Your task to perform on an android device: show emergency info Image 0: 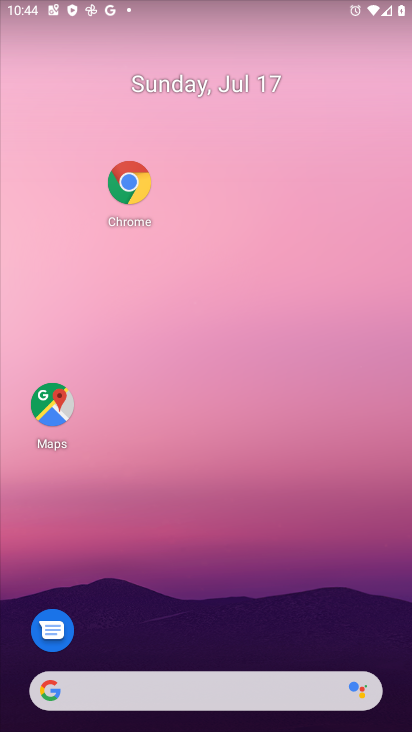
Step 0: drag from (186, 548) to (159, 3)
Your task to perform on an android device: show emergency info Image 1: 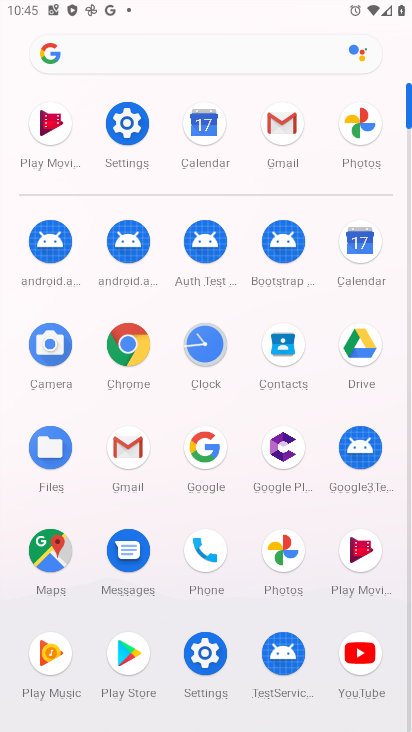
Step 1: click (117, 135)
Your task to perform on an android device: show emergency info Image 2: 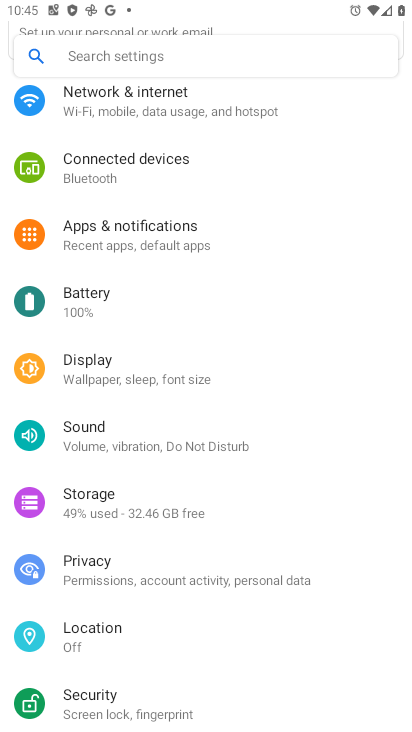
Step 2: drag from (173, 620) to (173, 300)
Your task to perform on an android device: show emergency info Image 3: 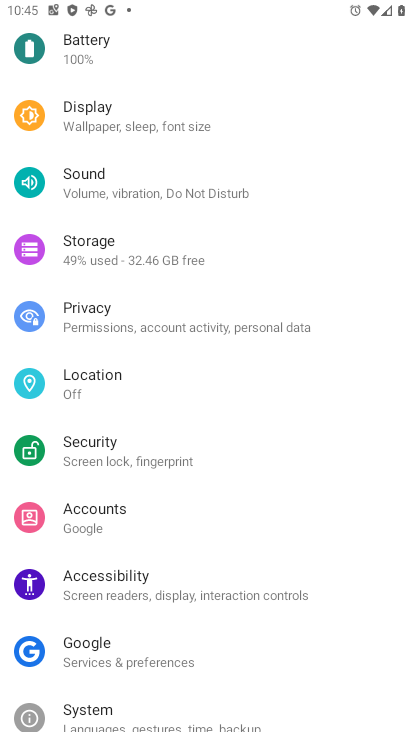
Step 3: drag from (117, 610) to (117, 409)
Your task to perform on an android device: show emergency info Image 4: 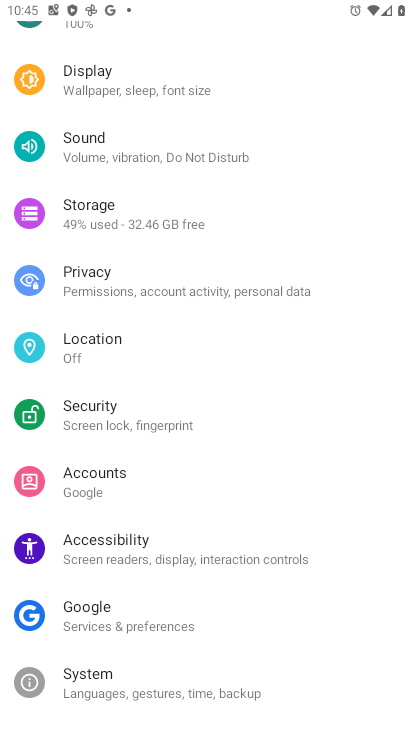
Step 4: drag from (165, 380) to (171, 338)
Your task to perform on an android device: show emergency info Image 5: 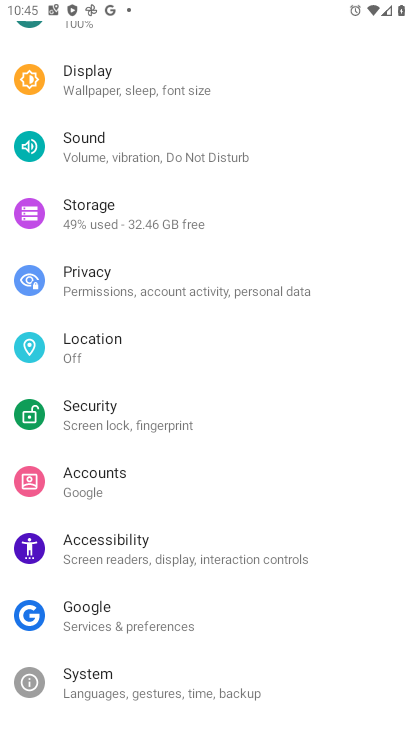
Step 5: drag from (151, 622) to (189, 238)
Your task to perform on an android device: show emergency info Image 6: 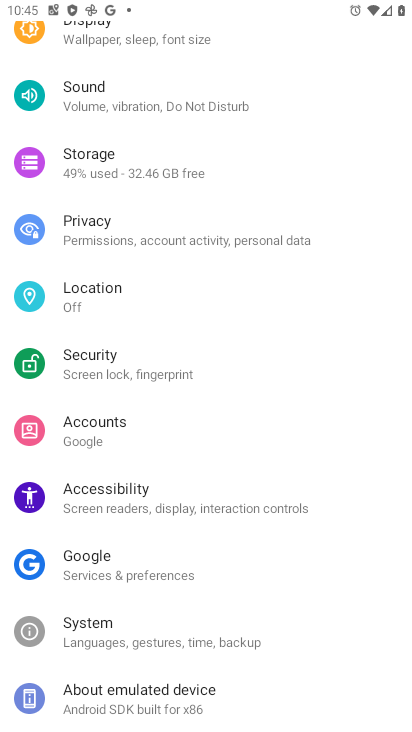
Step 6: click (104, 705)
Your task to perform on an android device: show emergency info Image 7: 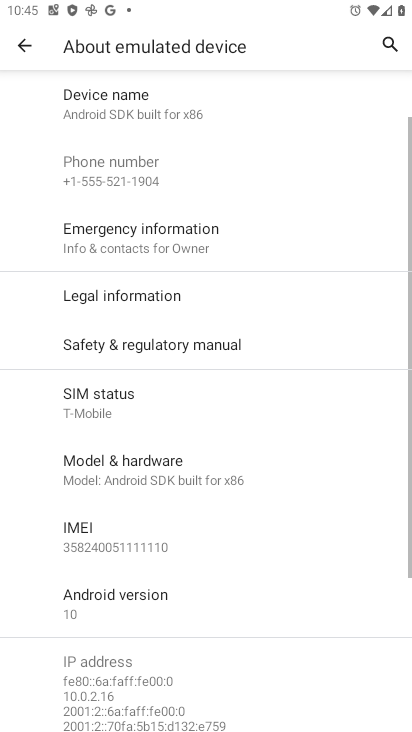
Step 7: click (198, 246)
Your task to perform on an android device: show emergency info Image 8: 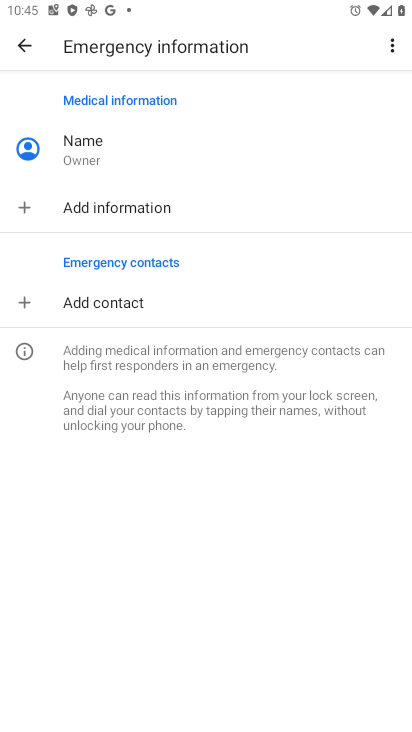
Step 8: task complete